Your task to perform on an android device: Open calendar and show me the first week of next month Image 0: 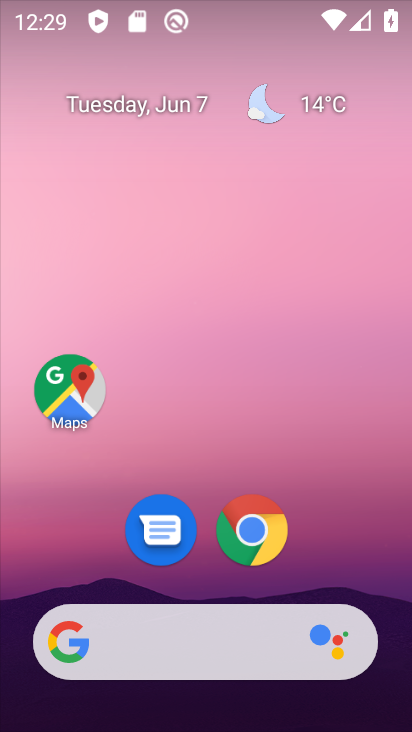
Step 0: drag from (319, 556) to (312, 217)
Your task to perform on an android device: Open calendar and show me the first week of next month Image 1: 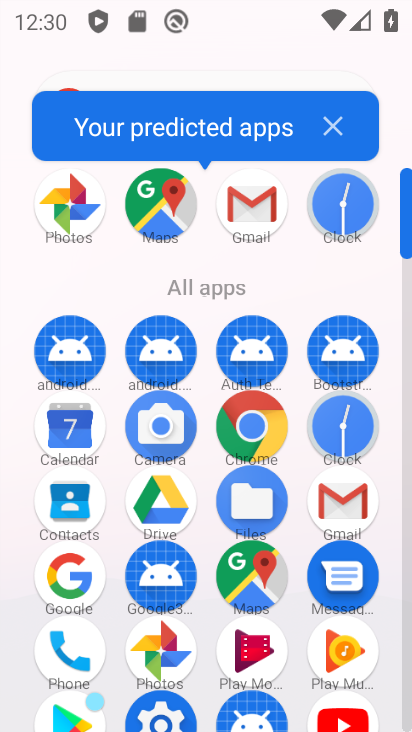
Step 1: click (55, 431)
Your task to perform on an android device: Open calendar and show me the first week of next month Image 2: 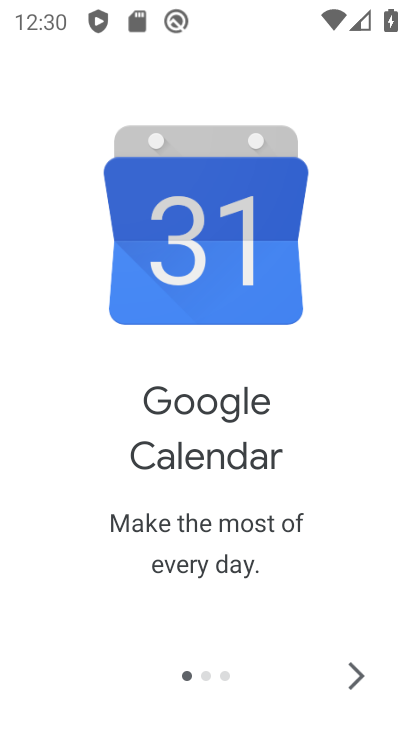
Step 2: click (343, 668)
Your task to perform on an android device: Open calendar and show me the first week of next month Image 3: 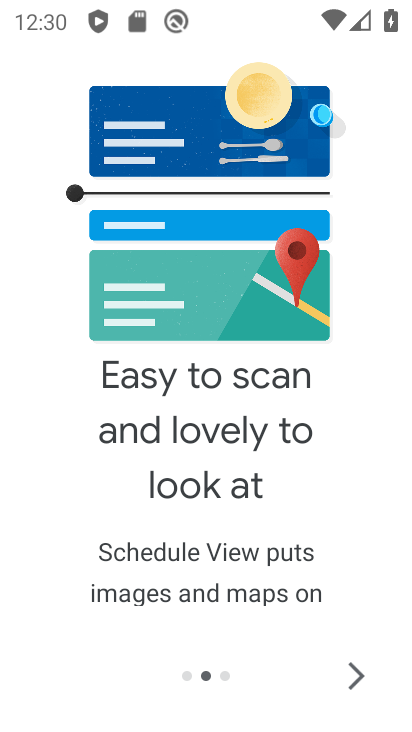
Step 3: click (344, 667)
Your task to perform on an android device: Open calendar and show me the first week of next month Image 4: 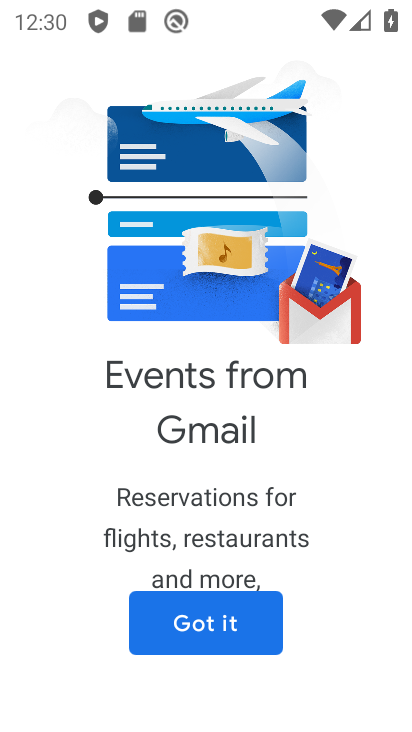
Step 4: click (235, 605)
Your task to perform on an android device: Open calendar and show me the first week of next month Image 5: 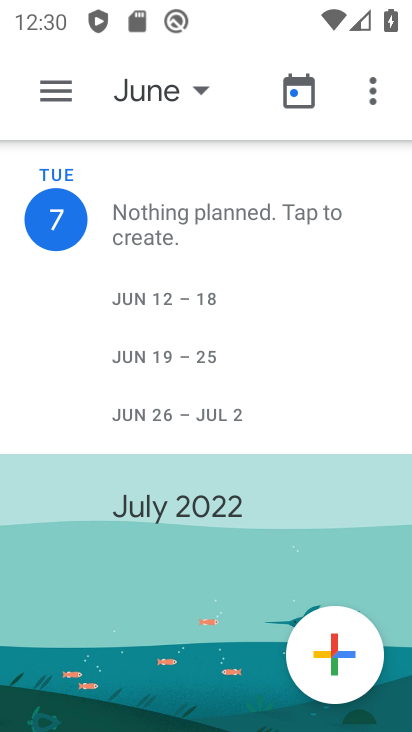
Step 5: click (63, 79)
Your task to perform on an android device: Open calendar and show me the first week of next month Image 6: 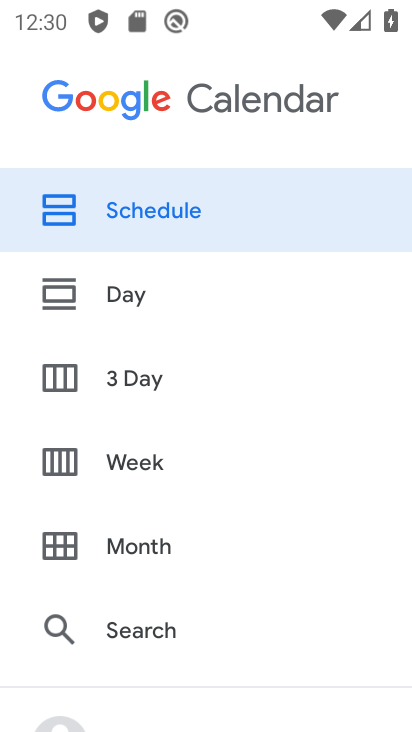
Step 6: click (165, 471)
Your task to perform on an android device: Open calendar and show me the first week of next month Image 7: 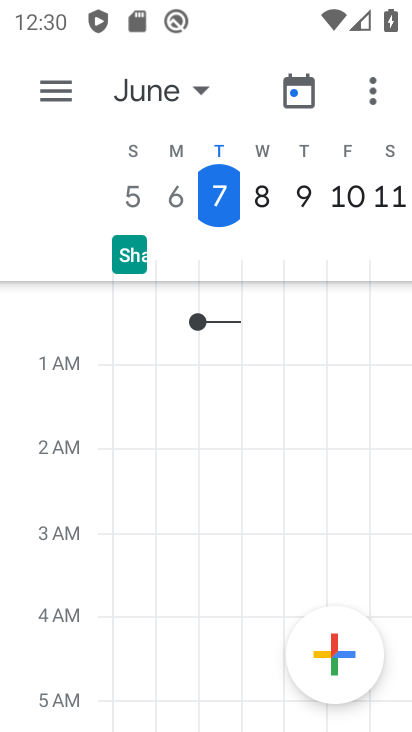
Step 7: click (44, 72)
Your task to perform on an android device: Open calendar and show me the first week of next month Image 8: 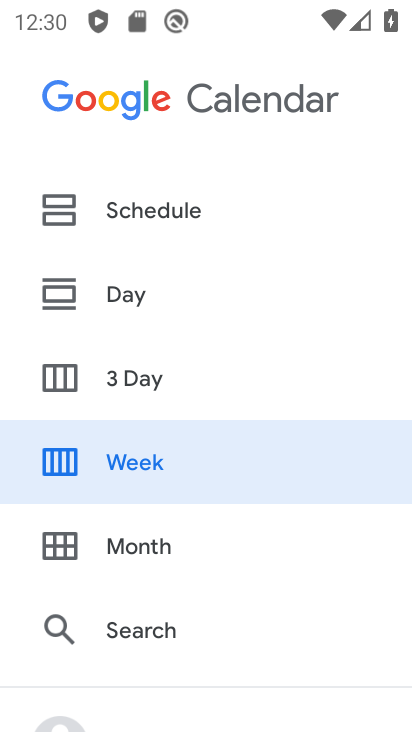
Step 8: click (110, 556)
Your task to perform on an android device: Open calendar and show me the first week of next month Image 9: 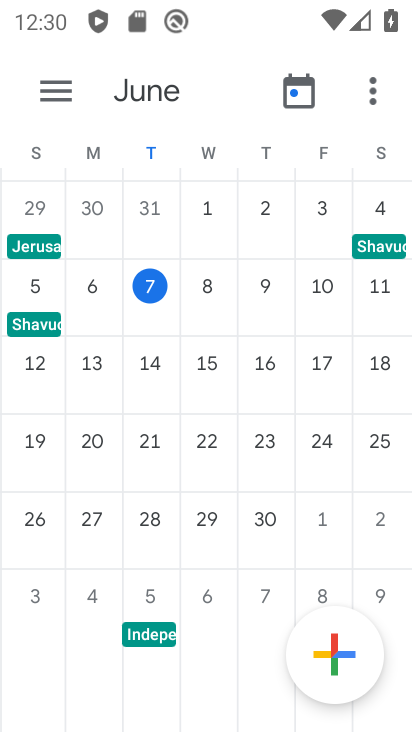
Step 9: task complete